Your task to perform on an android device: Go to Google Image 0: 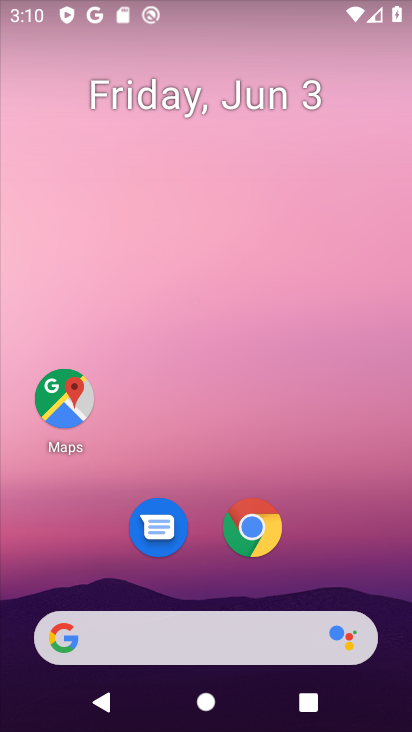
Step 0: click (53, 404)
Your task to perform on an android device: Go to Google Image 1: 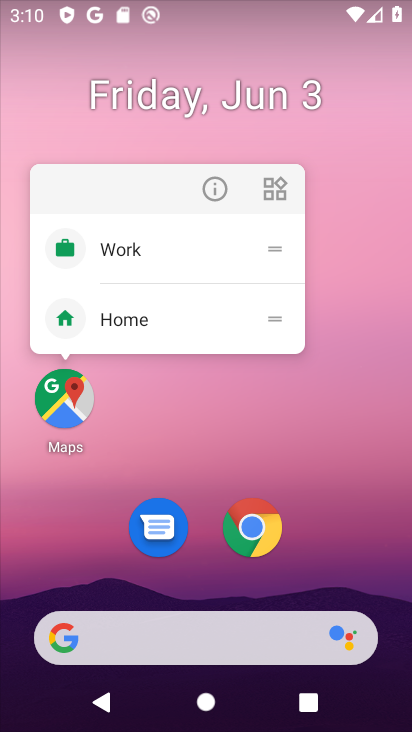
Step 1: click (313, 568)
Your task to perform on an android device: Go to Google Image 2: 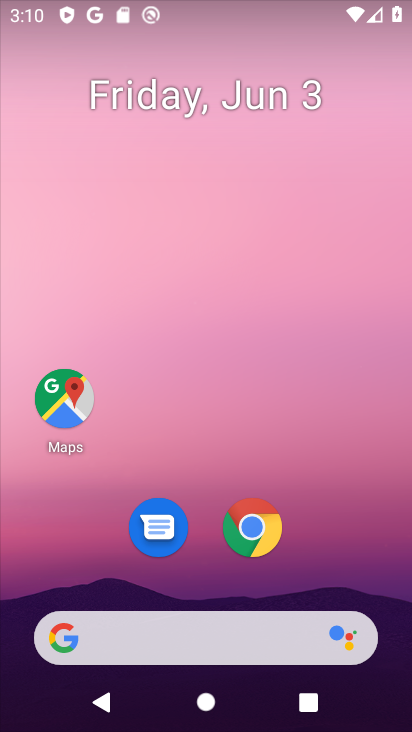
Step 2: drag from (236, 581) to (208, 186)
Your task to perform on an android device: Go to Google Image 3: 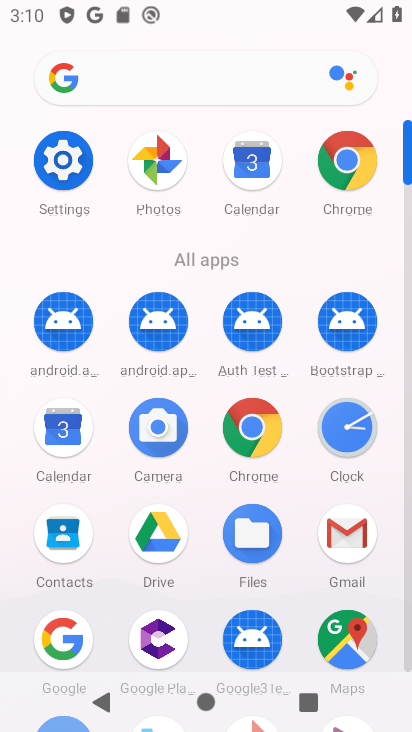
Step 3: click (59, 631)
Your task to perform on an android device: Go to Google Image 4: 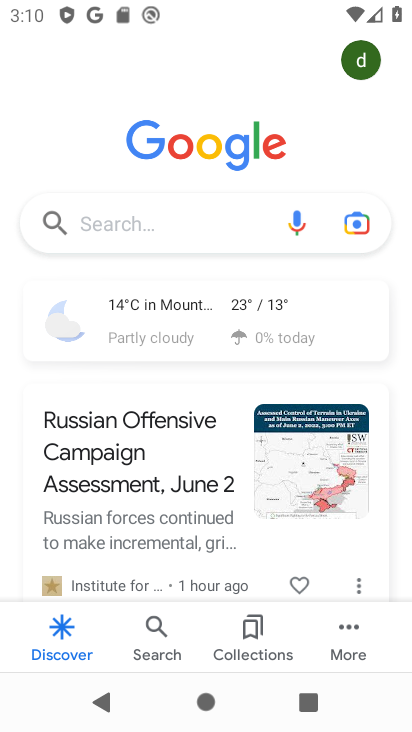
Step 4: task complete